Your task to perform on an android device: Go to Yahoo.com Image 0: 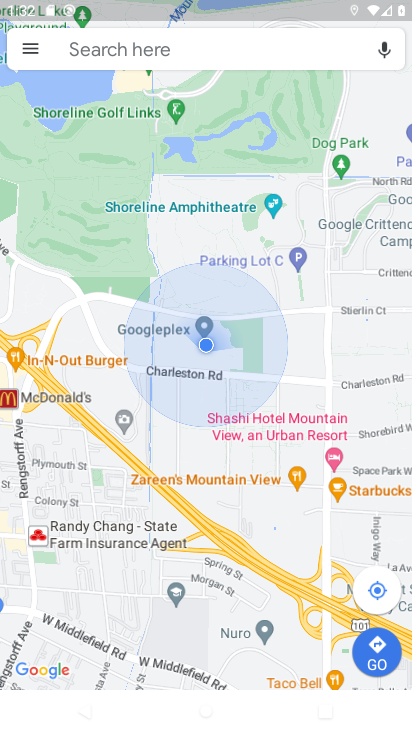
Step 0: press home button
Your task to perform on an android device: Go to Yahoo.com Image 1: 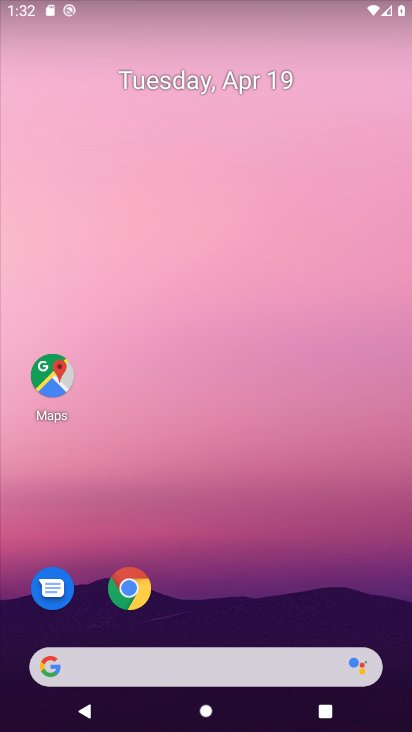
Step 1: click (186, 665)
Your task to perform on an android device: Go to Yahoo.com Image 2: 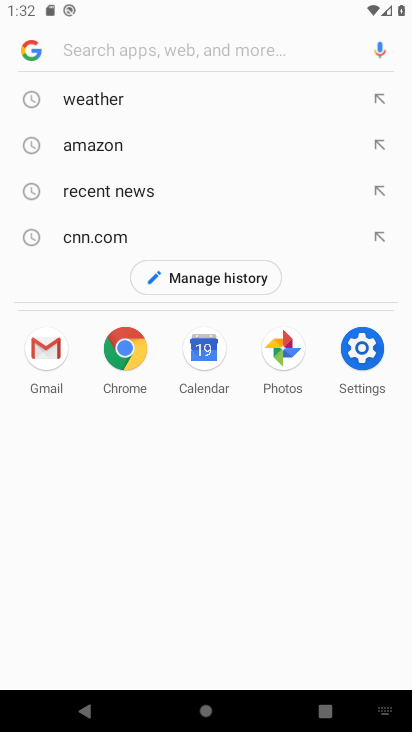
Step 2: type "Yahoo.com"
Your task to perform on an android device: Go to Yahoo.com Image 3: 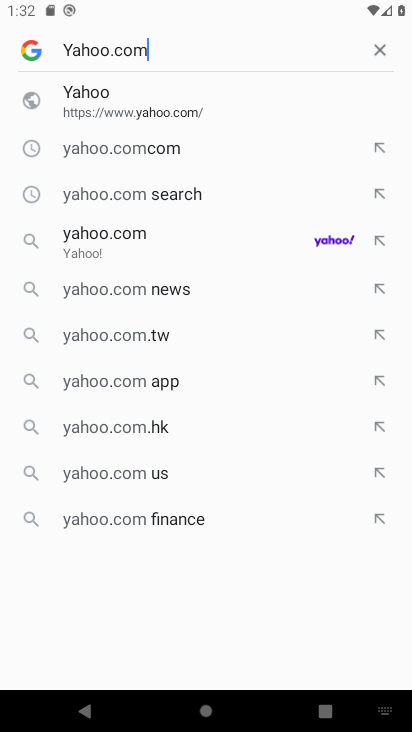
Step 3: click (147, 104)
Your task to perform on an android device: Go to Yahoo.com Image 4: 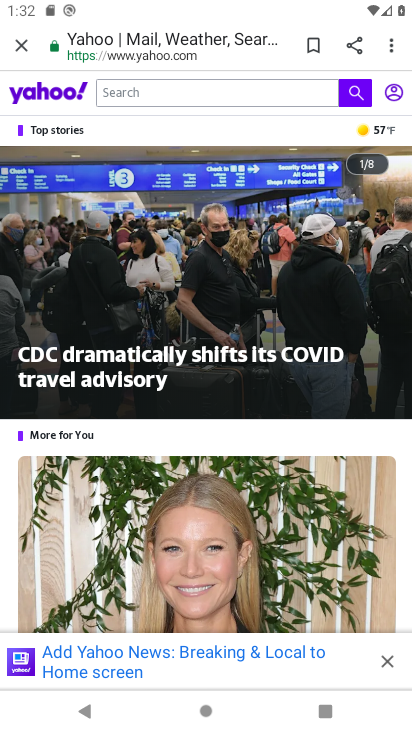
Step 4: task complete